Your task to perform on an android device: Search for seafood restaurants on Google Maps Image 0: 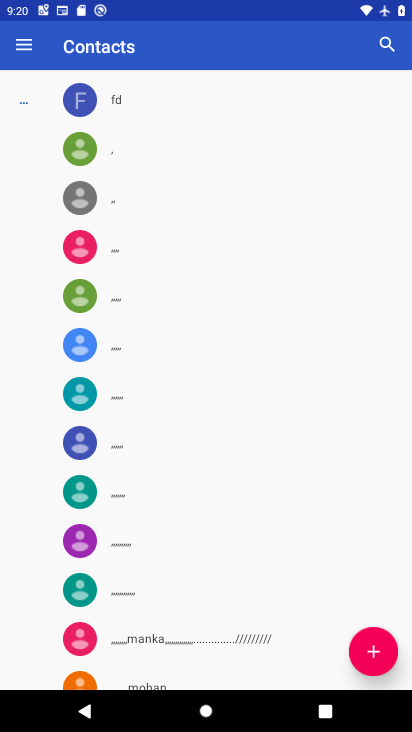
Step 0: press home button
Your task to perform on an android device: Search for seafood restaurants on Google Maps Image 1: 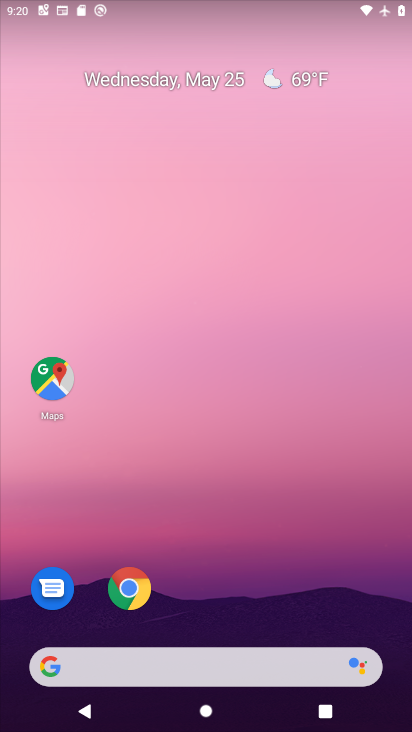
Step 1: drag from (378, 599) to (378, 152)
Your task to perform on an android device: Search for seafood restaurants on Google Maps Image 2: 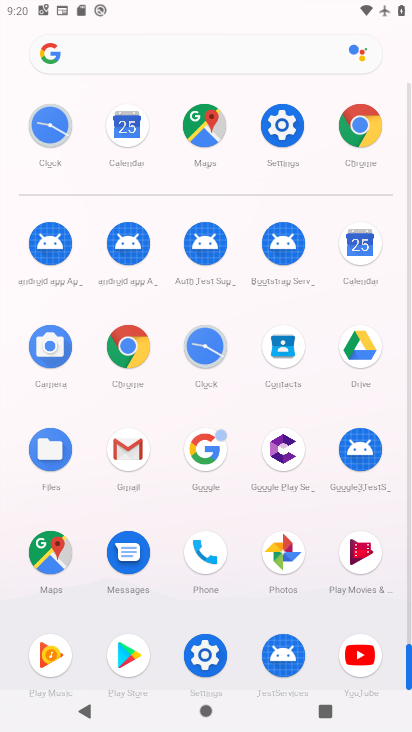
Step 2: click (210, 139)
Your task to perform on an android device: Search for seafood restaurants on Google Maps Image 3: 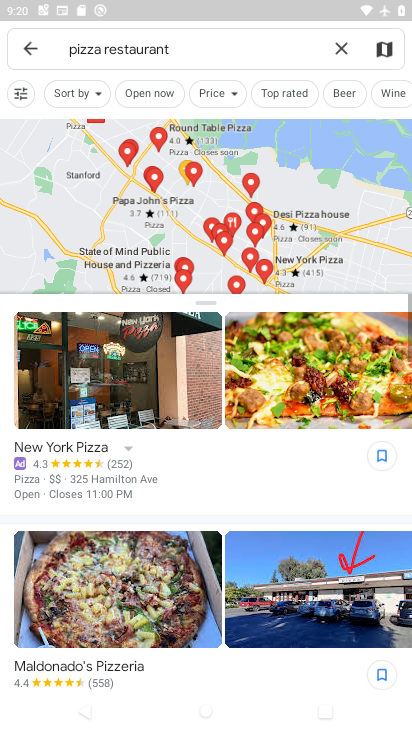
Step 3: click (335, 43)
Your task to perform on an android device: Search for seafood restaurants on Google Maps Image 4: 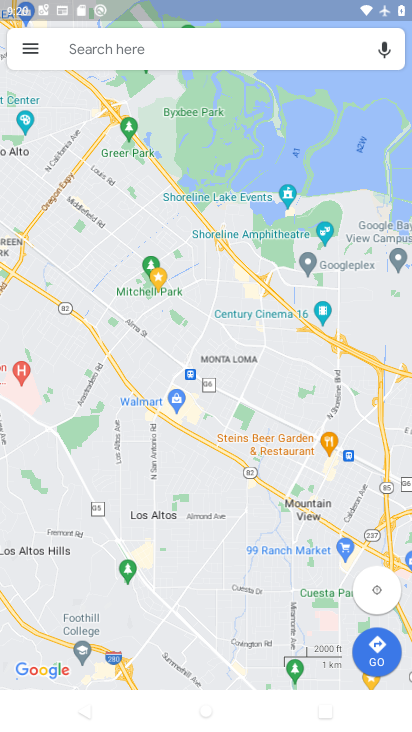
Step 4: click (249, 57)
Your task to perform on an android device: Search for seafood restaurants on Google Maps Image 5: 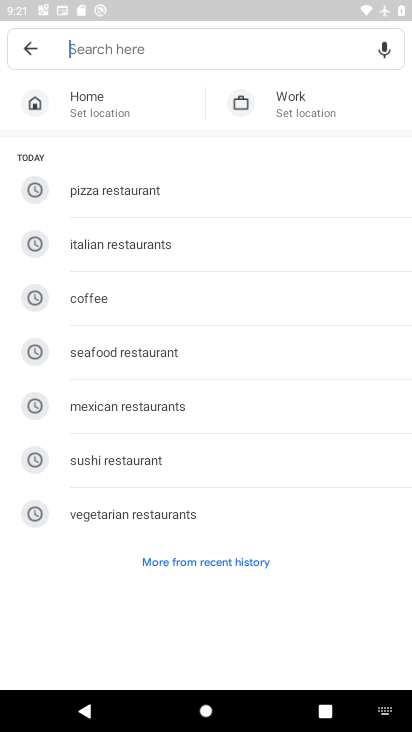
Step 5: type "seafood restaurants"
Your task to perform on an android device: Search for seafood restaurants on Google Maps Image 6: 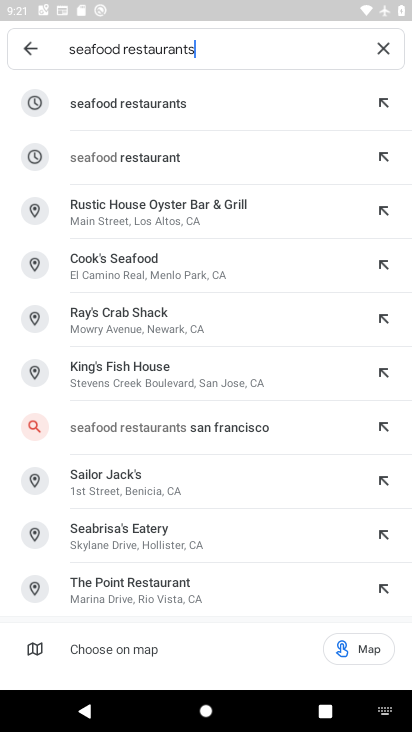
Step 6: click (206, 93)
Your task to perform on an android device: Search for seafood restaurants on Google Maps Image 7: 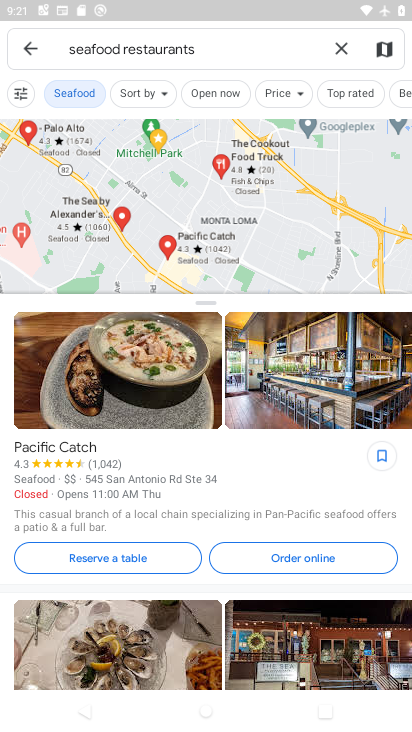
Step 7: task complete